Your task to perform on an android device: toggle notifications settings in the gmail app Image 0: 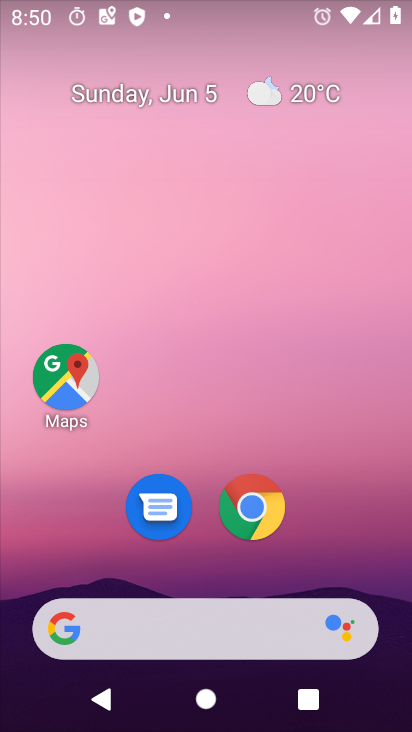
Step 0: drag from (358, 563) to (231, 42)
Your task to perform on an android device: toggle notifications settings in the gmail app Image 1: 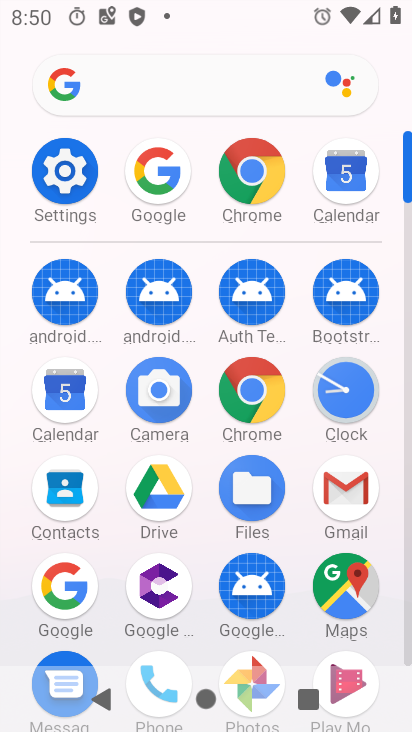
Step 1: drag from (15, 616) to (19, 292)
Your task to perform on an android device: toggle notifications settings in the gmail app Image 2: 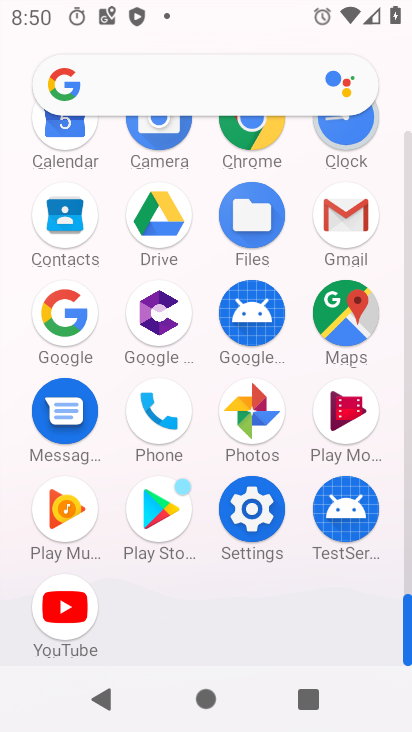
Step 2: click (342, 208)
Your task to perform on an android device: toggle notifications settings in the gmail app Image 3: 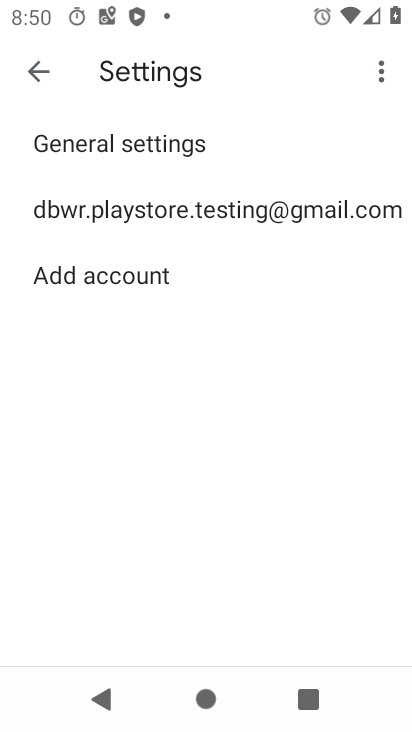
Step 3: click (41, 75)
Your task to perform on an android device: toggle notifications settings in the gmail app Image 4: 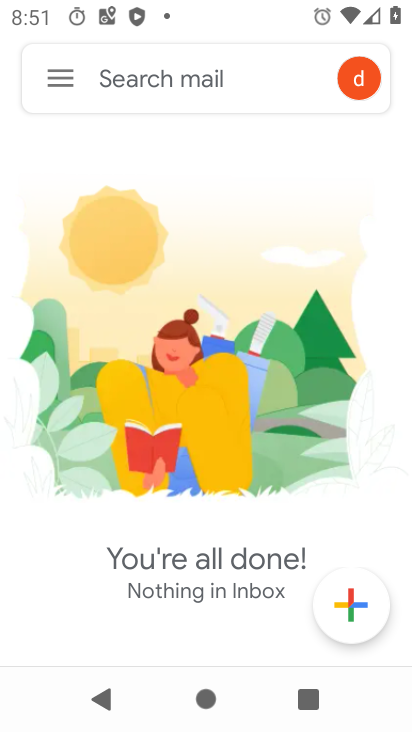
Step 4: click (56, 71)
Your task to perform on an android device: toggle notifications settings in the gmail app Image 5: 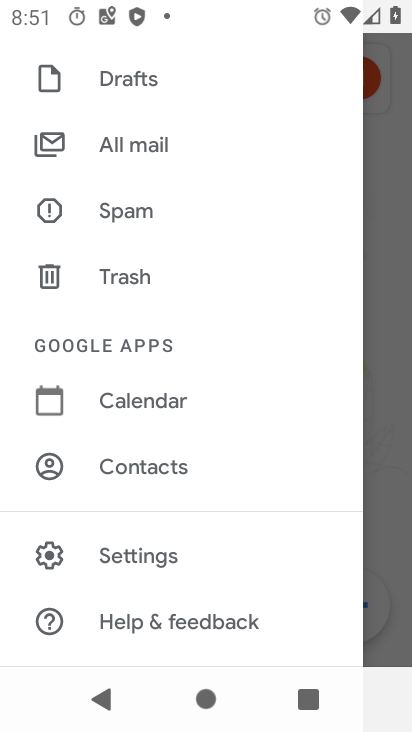
Step 5: click (159, 544)
Your task to perform on an android device: toggle notifications settings in the gmail app Image 6: 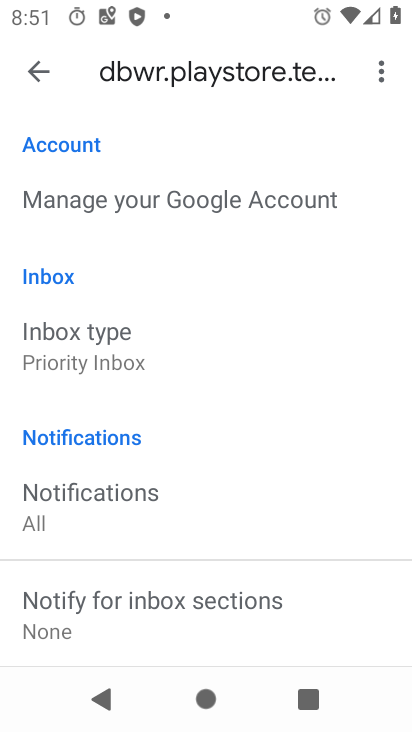
Step 6: drag from (242, 514) to (233, 158)
Your task to perform on an android device: toggle notifications settings in the gmail app Image 7: 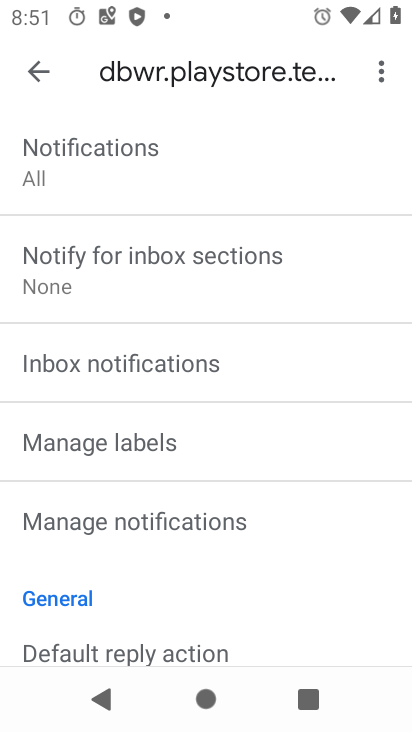
Step 7: drag from (224, 597) to (245, 162)
Your task to perform on an android device: toggle notifications settings in the gmail app Image 8: 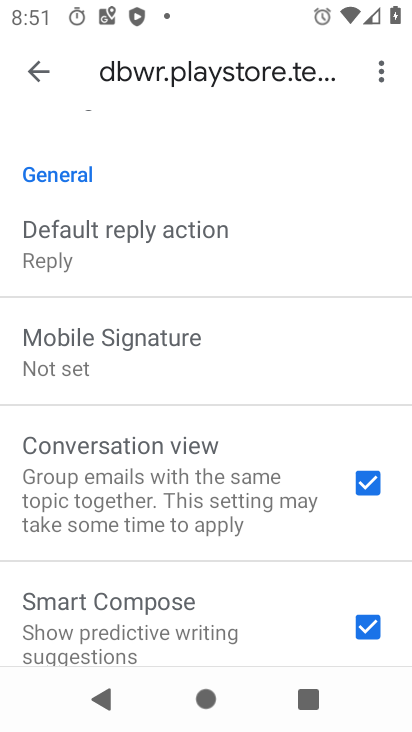
Step 8: drag from (207, 576) to (257, 129)
Your task to perform on an android device: toggle notifications settings in the gmail app Image 9: 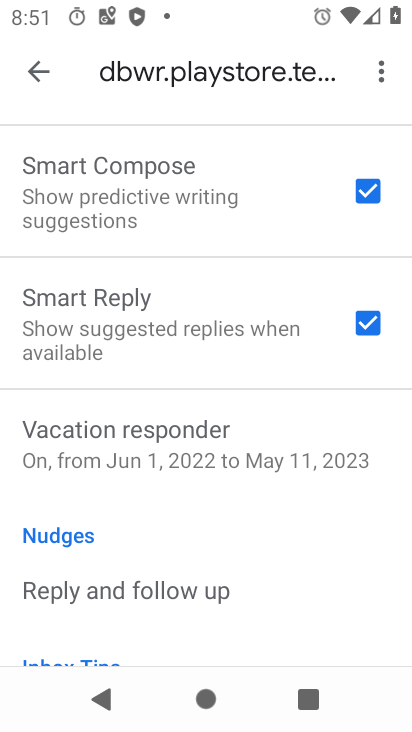
Step 9: drag from (247, 564) to (243, 157)
Your task to perform on an android device: toggle notifications settings in the gmail app Image 10: 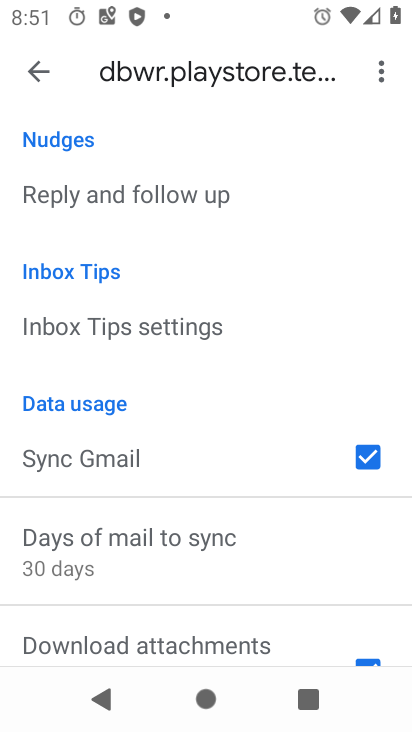
Step 10: drag from (232, 518) to (238, 154)
Your task to perform on an android device: toggle notifications settings in the gmail app Image 11: 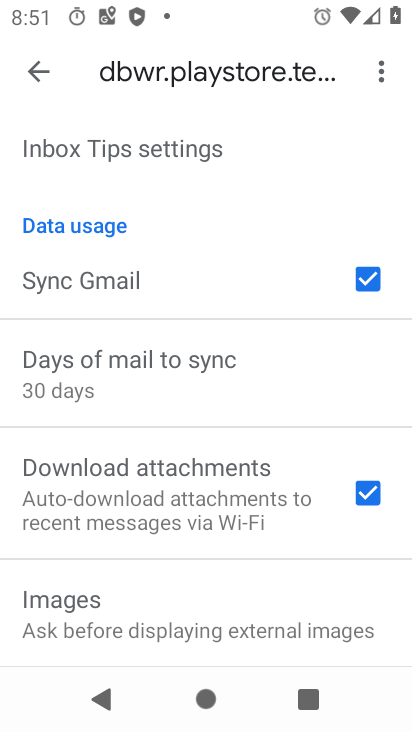
Step 11: drag from (221, 585) to (221, 176)
Your task to perform on an android device: toggle notifications settings in the gmail app Image 12: 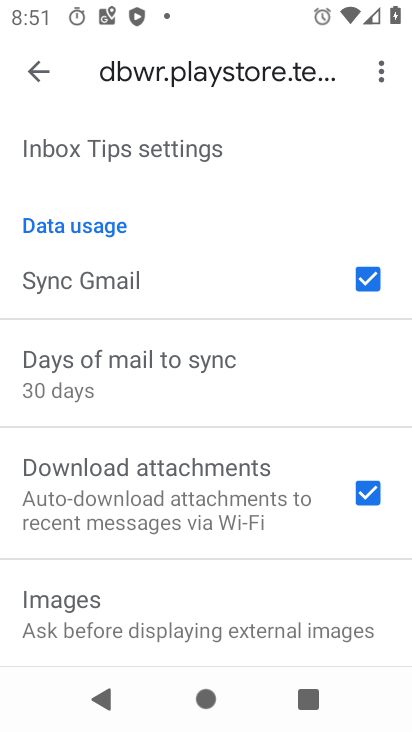
Step 12: drag from (221, 232) to (229, 660)
Your task to perform on an android device: toggle notifications settings in the gmail app Image 13: 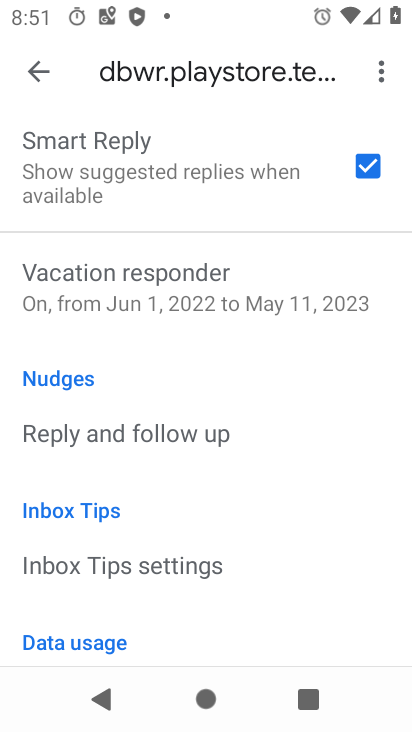
Step 13: drag from (227, 208) to (218, 567)
Your task to perform on an android device: toggle notifications settings in the gmail app Image 14: 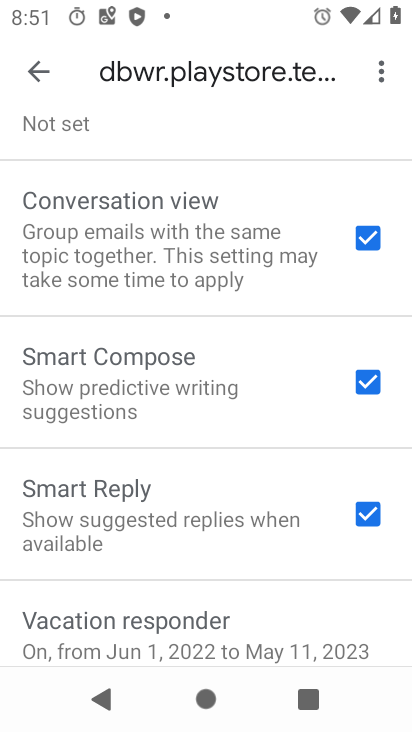
Step 14: drag from (227, 193) to (206, 576)
Your task to perform on an android device: toggle notifications settings in the gmail app Image 15: 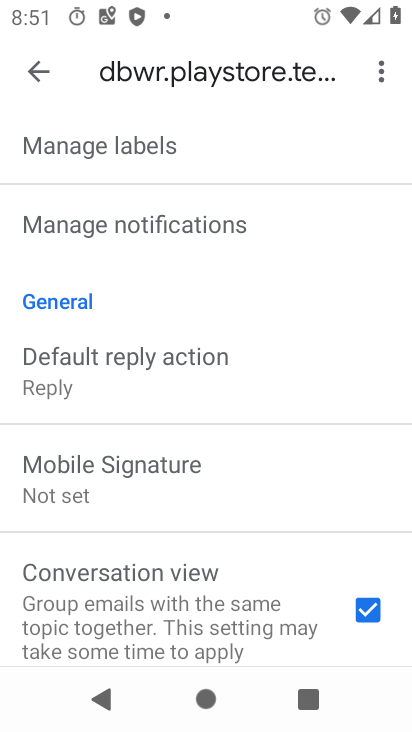
Step 15: click (216, 211)
Your task to perform on an android device: toggle notifications settings in the gmail app Image 16: 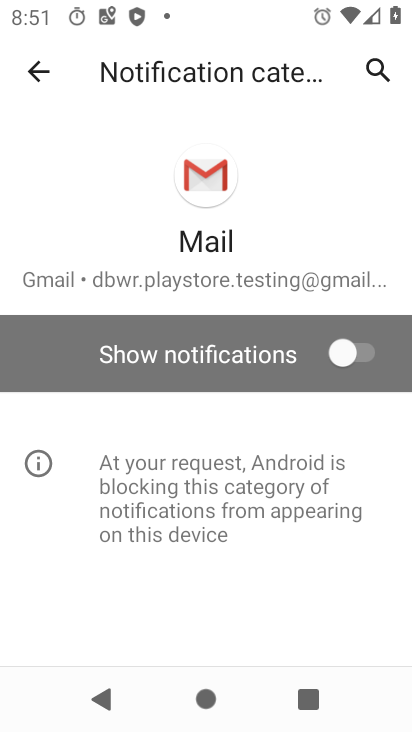
Step 16: click (329, 349)
Your task to perform on an android device: toggle notifications settings in the gmail app Image 17: 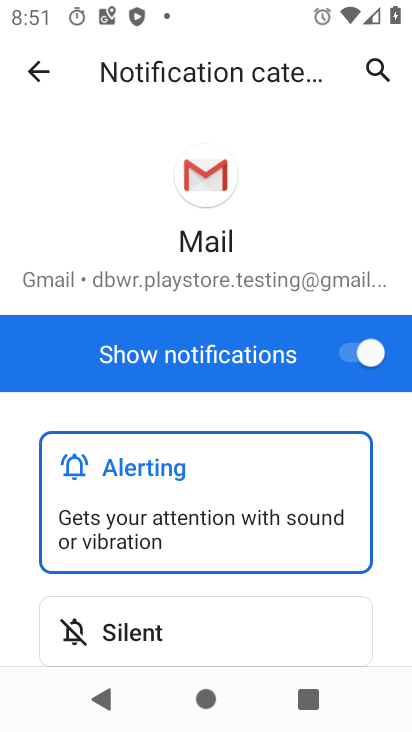
Step 17: task complete